Your task to perform on an android device: Is it going to rain today? Image 0: 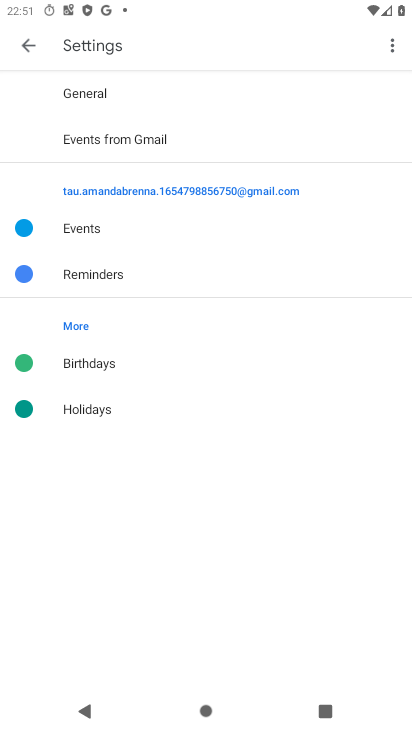
Step 0: press home button
Your task to perform on an android device: Is it going to rain today? Image 1: 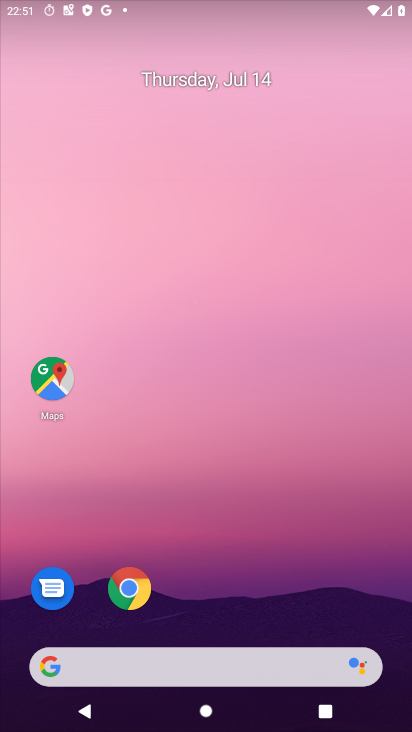
Step 1: drag from (232, 617) to (263, 154)
Your task to perform on an android device: Is it going to rain today? Image 2: 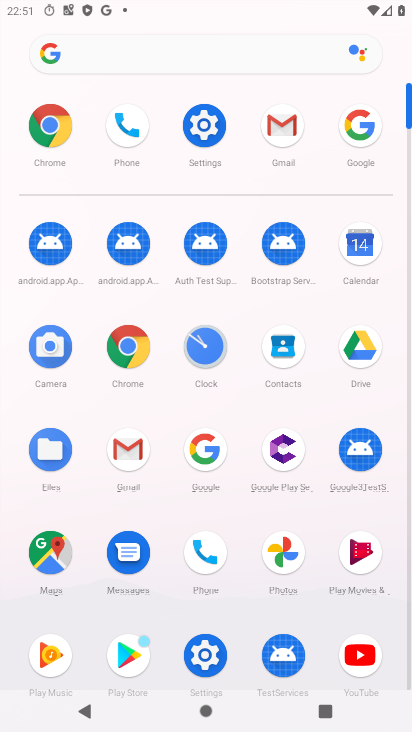
Step 2: click (206, 453)
Your task to perform on an android device: Is it going to rain today? Image 3: 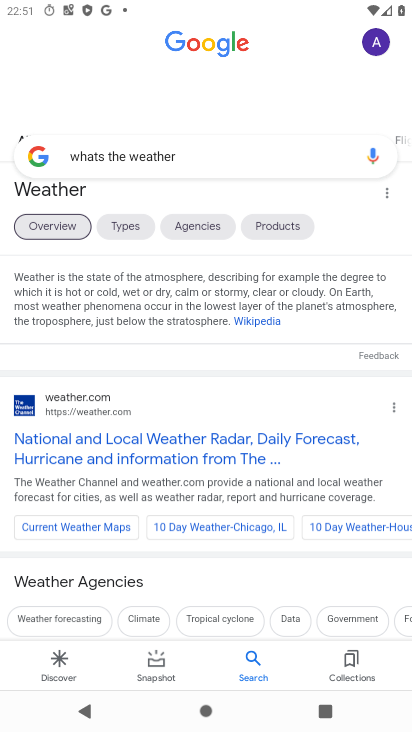
Step 3: click (244, 157)
Your task to perform on an android device: Is it going to rain today? Image 4: 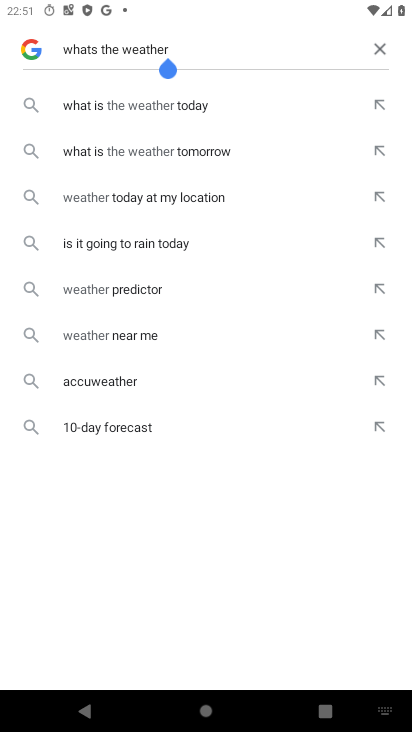
Step 4: click (378, 45)
Your task to perform on an android device: Is it going to rain today? Image 5: 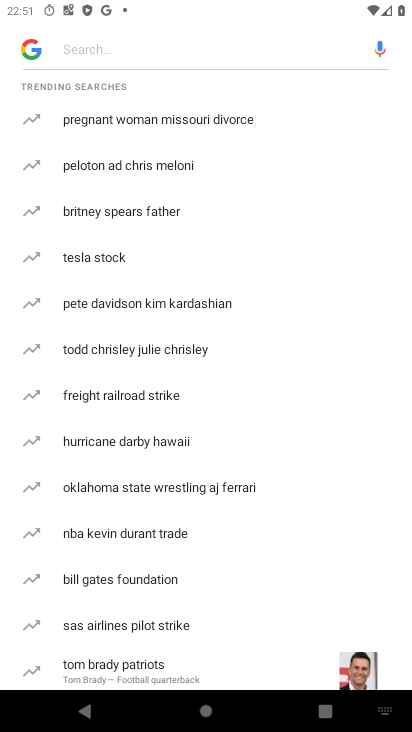
Step 5: type "is it going to rain today"
Your task to perform on an android device: Is it going to rain today? Image 6: 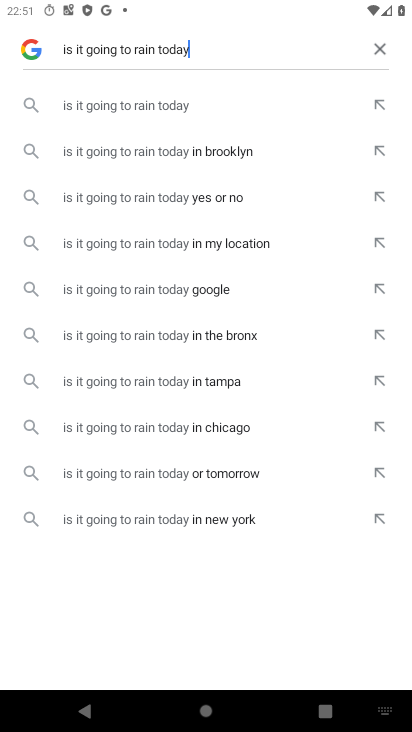
Step 6: click (169, 110)
Your task to perform on an android device: Is it going to rain today? Image 7: 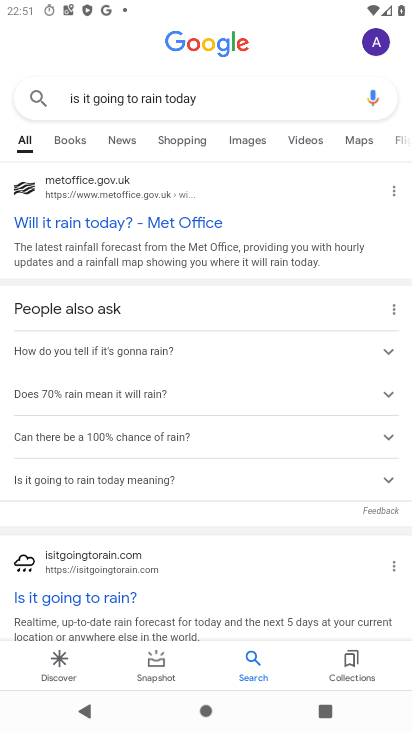
Step 7: task complete